Your task to perform on an android device: See recent photos Image 0: 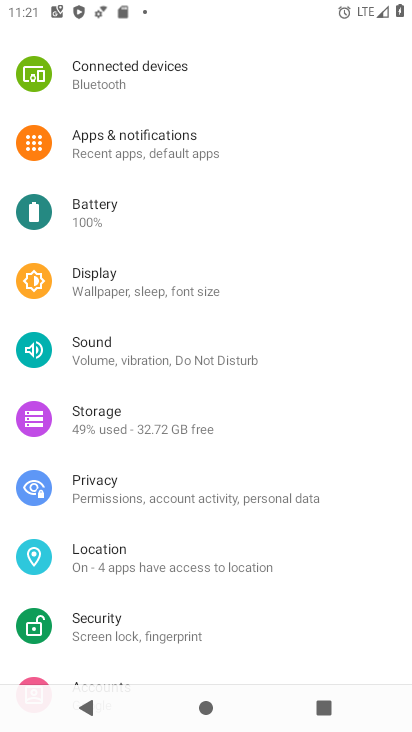
Step 0: press home button
Your task to perform on an android device: See recent photos Image 1: 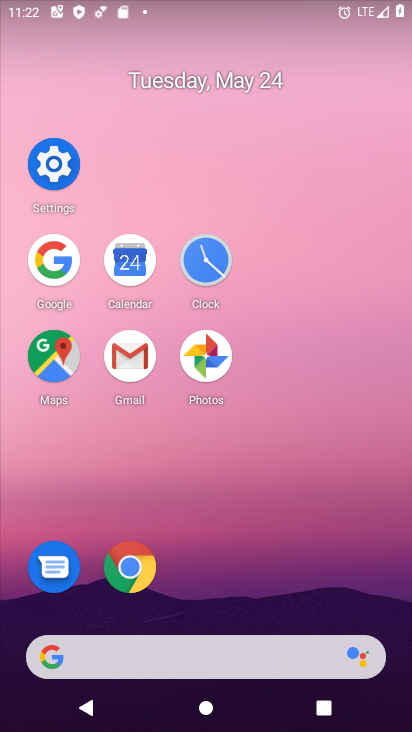
Step 1: click (219, 348)
Your task to perform on an android device: See recent photos Image 2: 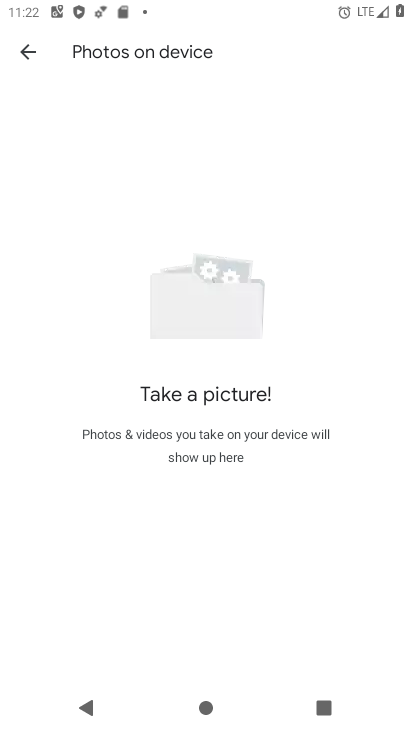
Step 2: click (34, 50)
Your task to perform on an android device: See recent photos Image 3: 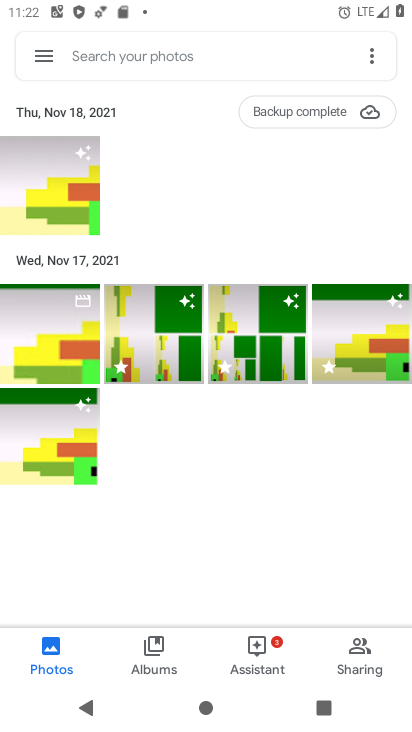
Step 3: task complete